Your task to perform on an android device: stop showing notifications on the lock screen Image 0: 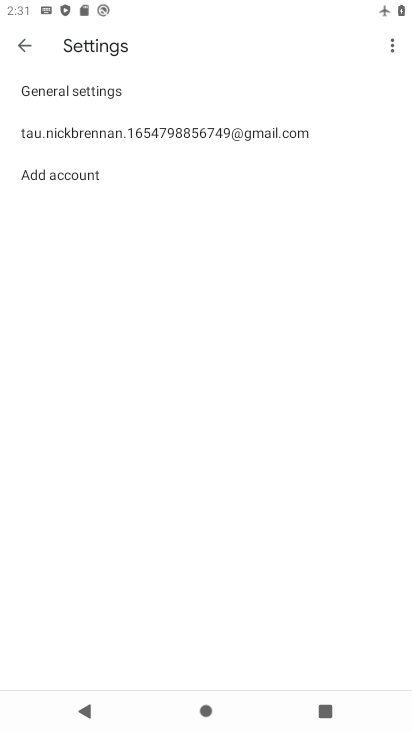
Step 0: press home button
Your task to perform on an android device: stop showing notifications on the lock screen Image 1: 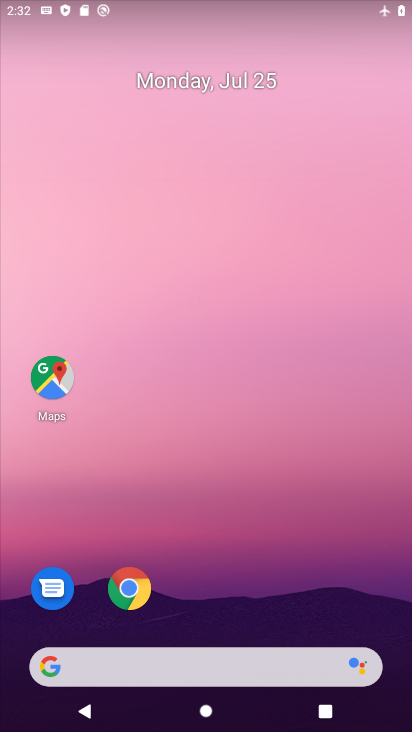
Step 1: drag from (323, 617) to (254, 79)
Your task to perform on an android device: stop showing notifications on the lock screen Image 2: 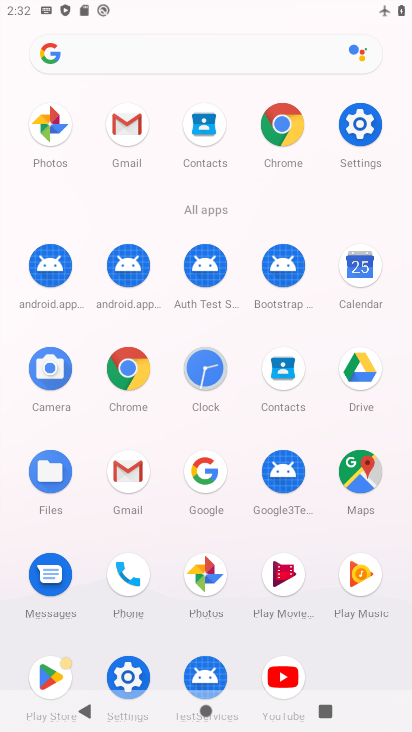
Step 2: click (361, 119)
Your task to perform on an android device: stop showing notifications on the lock screen Image 3: 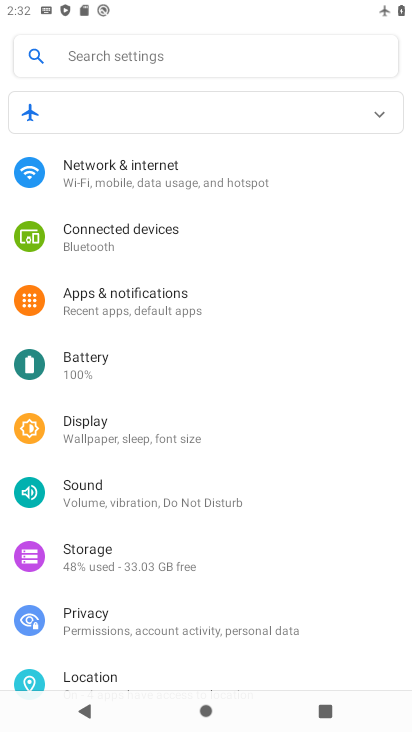
Step 3: click (138, 308)
Your task to perform on an android device: stop showing notifications on the lock screen Image 4: 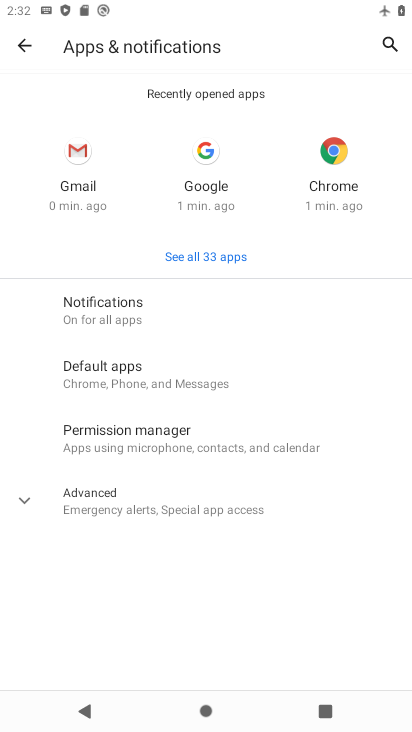
Step 4: click (140, 323)
Your task to perform on an android device: stop showing notifications on the lock screen Image 5: 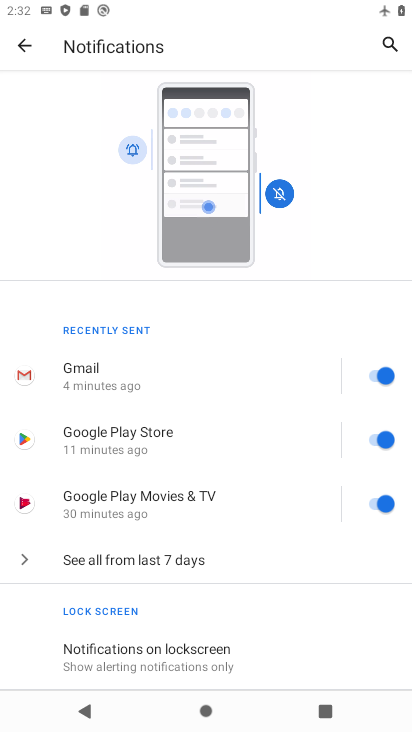
Step 5: click (197, 656)
Your task to perform on an android device: stop showing notifications on the lock screen Image 6: 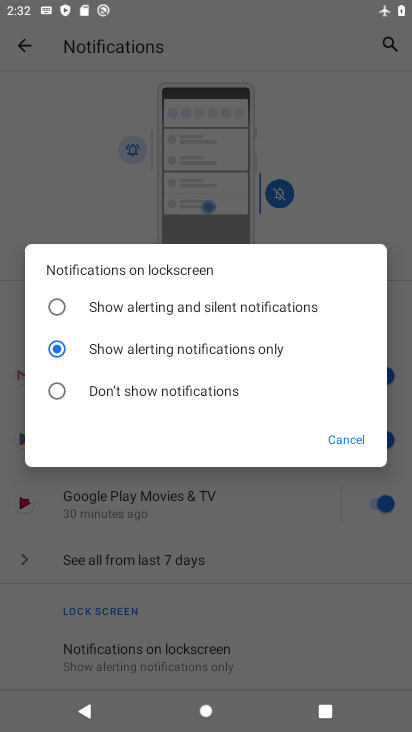
Step 6: click (180, 388)
Your task to perform on an android device: stop showing notifications on the lock screen Image 7: 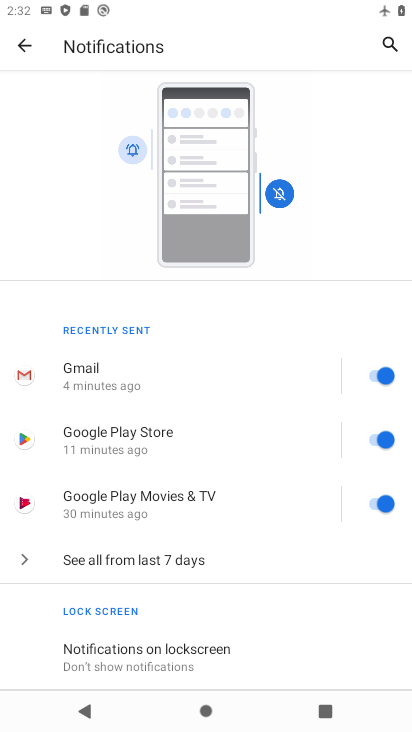
Step 7: task complete